Your task to perform on an android device: Open battery settings Image 0: 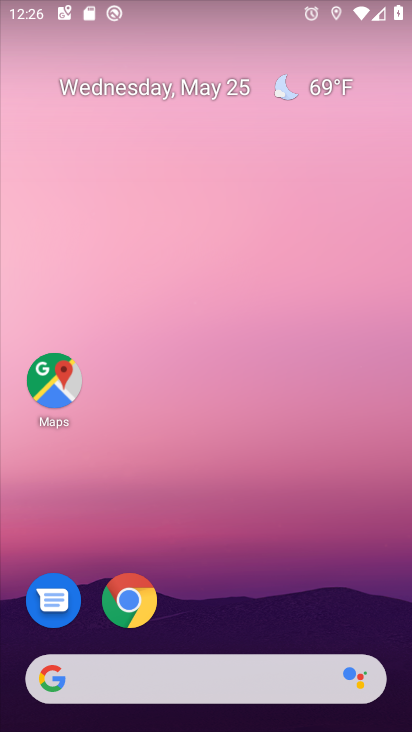
Step 0: drag from (373, 625) to (382, 248)
Your task to perform on an android device: Open battery settings Image 1: 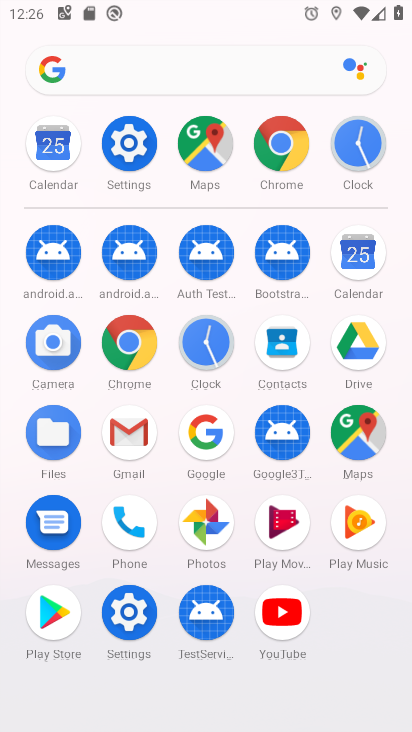
Step 1: click (138, 621)
Your task to perform on an android device: Open battery settings Image 2: 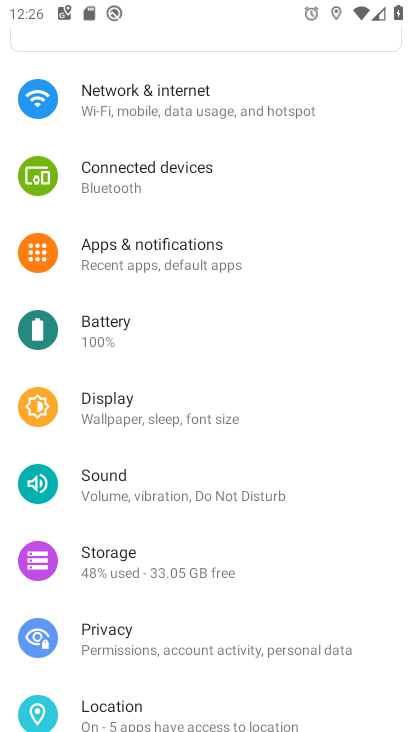
Step 2: click (216, 338)
Your task to perform on an android device: Open battery settings Image 3: 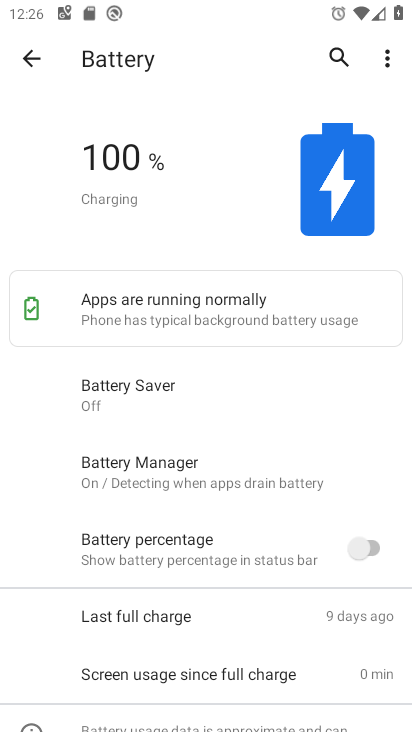
Step 3: task complete